Your task to perform on an android device: Check the news Image 0: 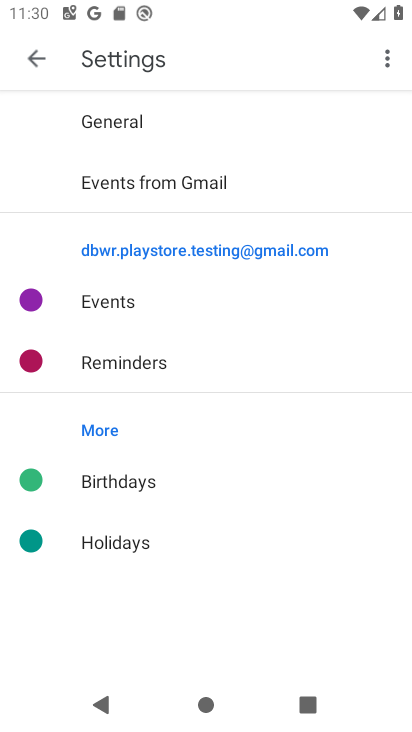
Step 0: press home button
Your task to perform on an android device: Check the news Image 1: 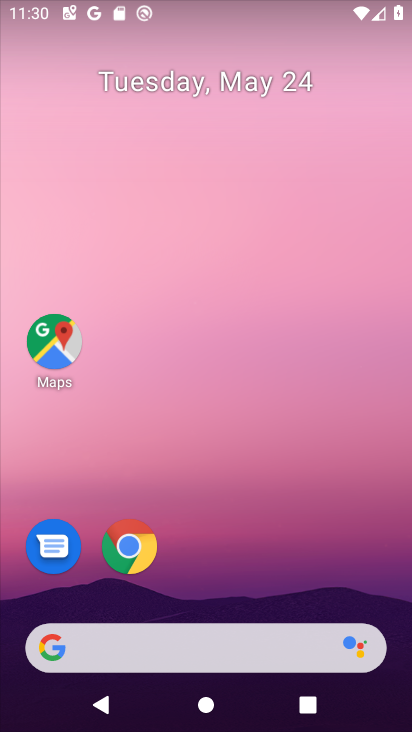
Step 1: drag from (196, 597) to (313, 68)
Your task to perform on an android device: Check the news Image 2: 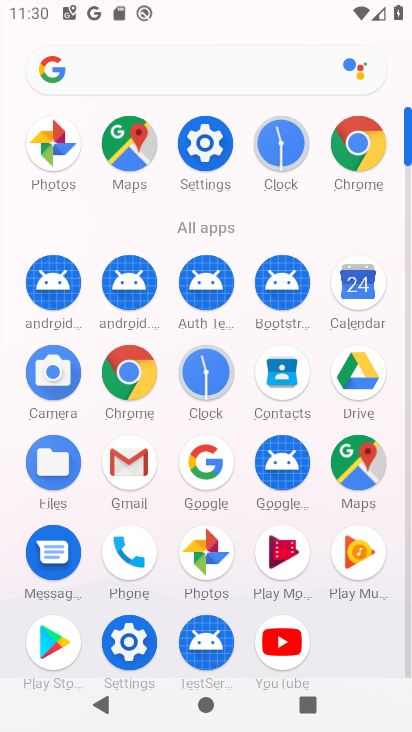
Step 2: click (204, 71)
Your task to perform on an android device: Check the news Image 3: 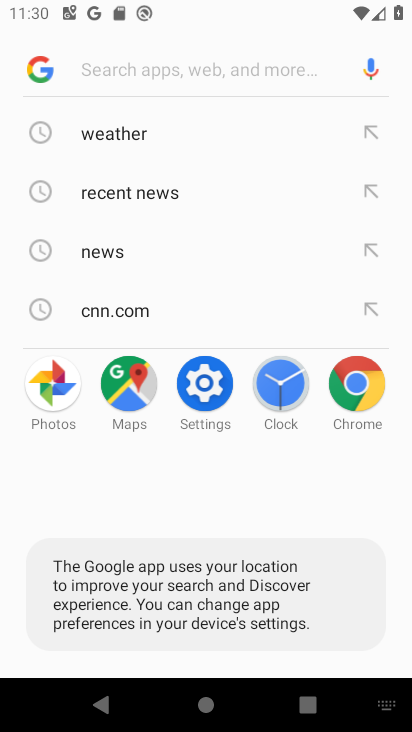
Step 3: type "news"
Your task to perform on an android device: Check the news Image 4: 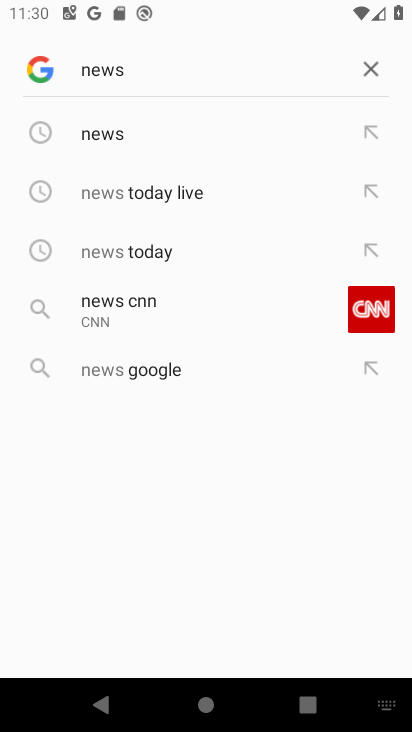
Step 4: click (135, 143)
Your task to perform on an android device: Check the news Image 5: 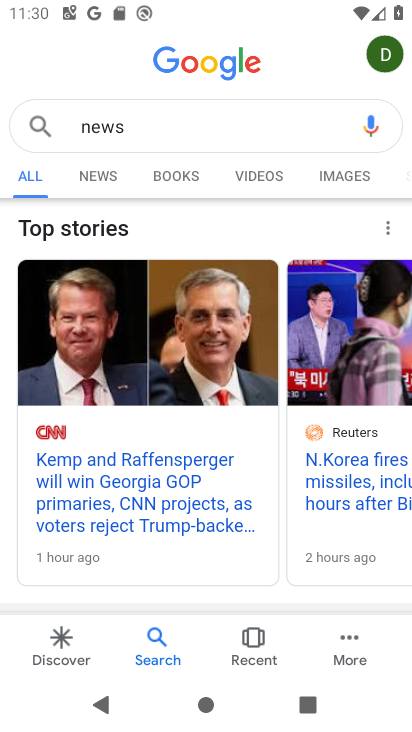
Step 5: task complete